Your task to perform on an android device: Go to ESPN.com Image 0: 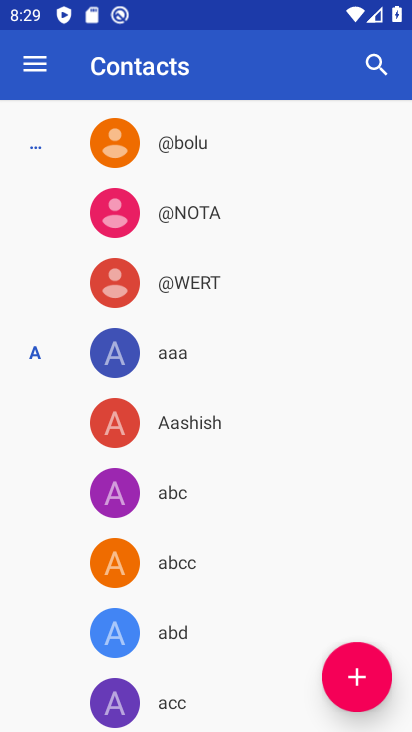
Step 0: press home button
Your task to perform on an android device: Go to ESPN.com Image 1: 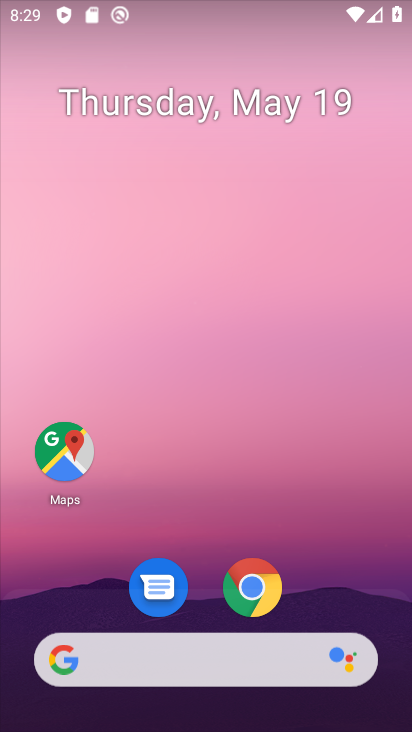
Step 1: drag from (251, 709) to (203, 205)
Your task to perform on an android device: Go to ESPN.com Image 2: 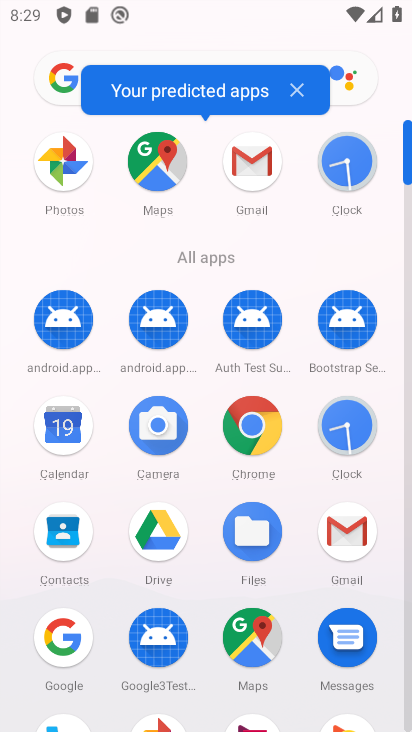
Step 2: click (257, 424)
Your task to perform on an android device: Go to ESPN.com Image 3: 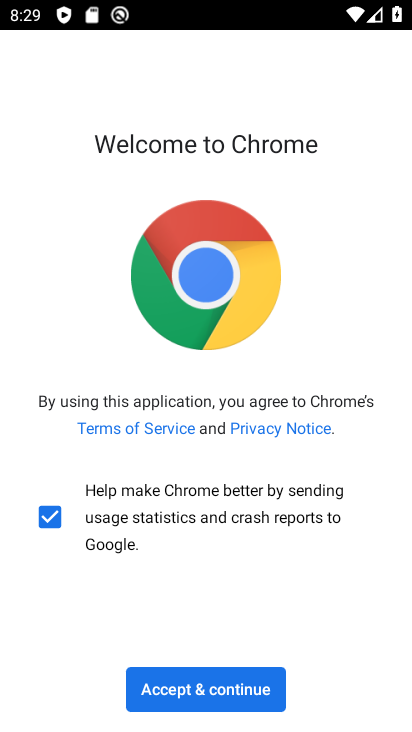
Step 3: click (193, 673)
Your task to perform on an android device: Go to ESPN.com Image 4: 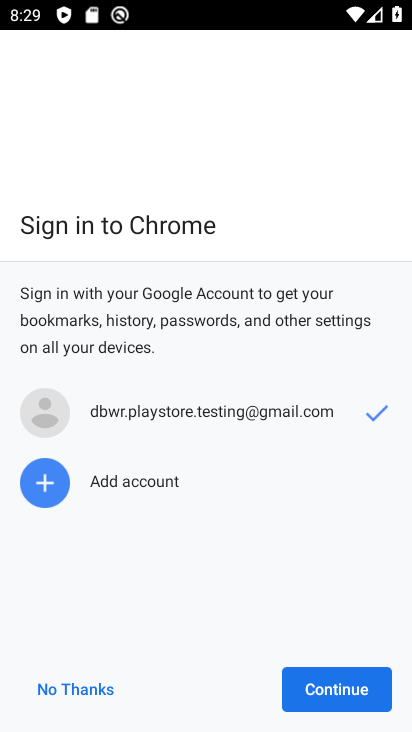
Step 4: click (344, 689)
Your task to perform on an android device: Go to ESPN.com Image 5: 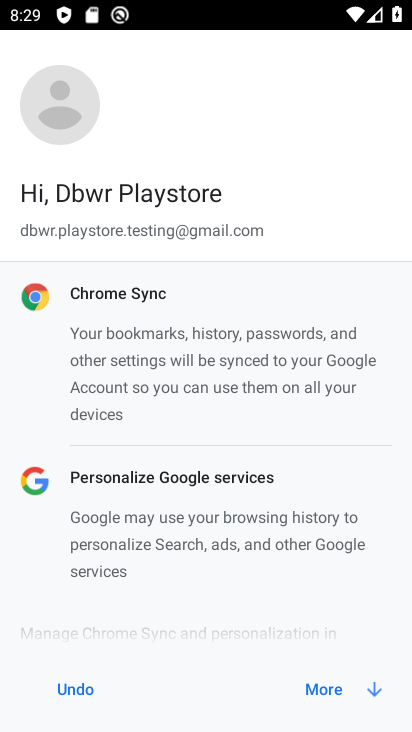
Step 5: click (373, 696)
Your task to perform on an android device: Go to ESPN.com Image 6: 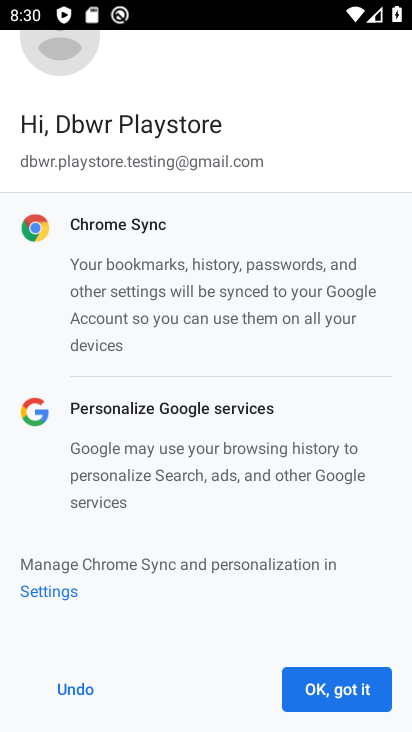
Step 6: click (372, 695)
Your task to perform on an android device: Go to ESPN.com Image 7: 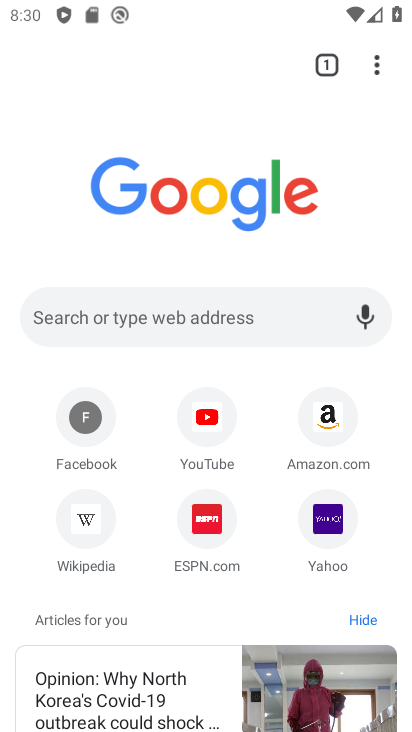
Step 7: click (204, 518)
Your task to perform on an android device: Go to ESPN.com Image 8: 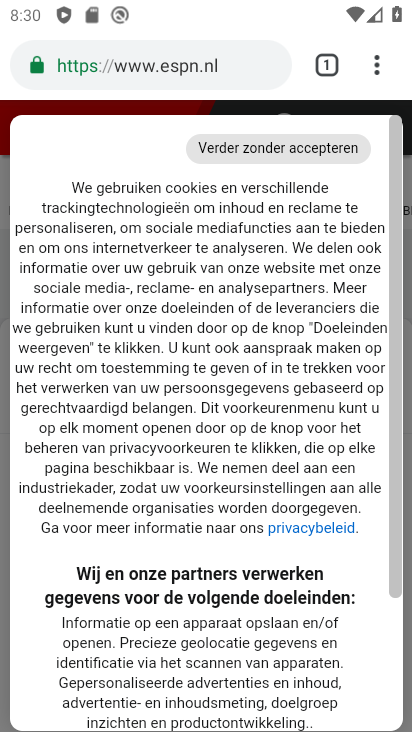
Step 8: drag from (222, 583) to (251, 308)
Your task to perform on an android device: Go to ESPN.com Image 9: 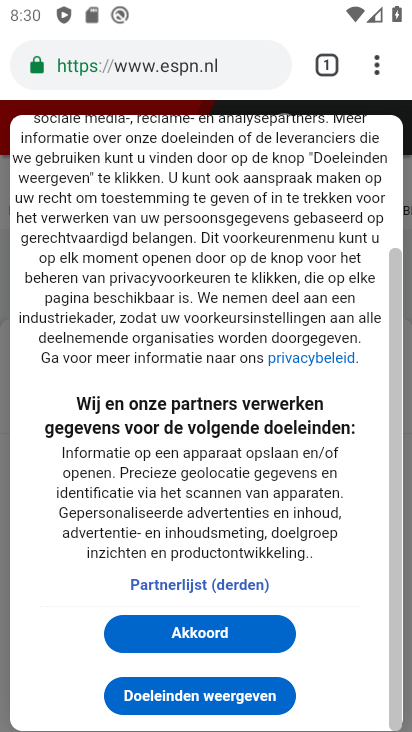
Step 9: click (223, 626)
Your task to perform on an android device: Go to ESPN.com Image 10: 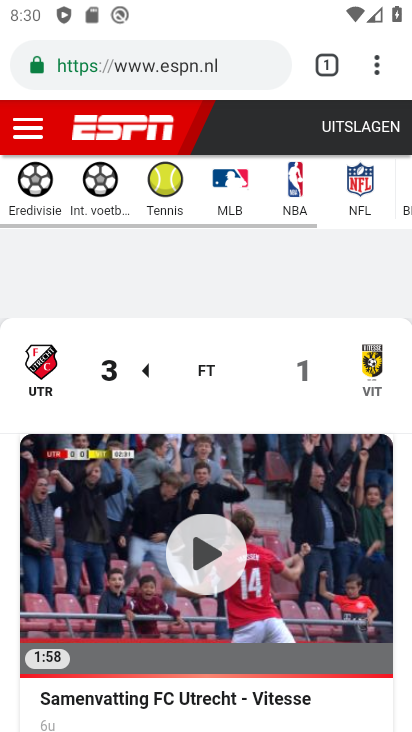
Step 10: task complete